Your task to perform on an android device: make emails show in primary in the gmail app Image 0: 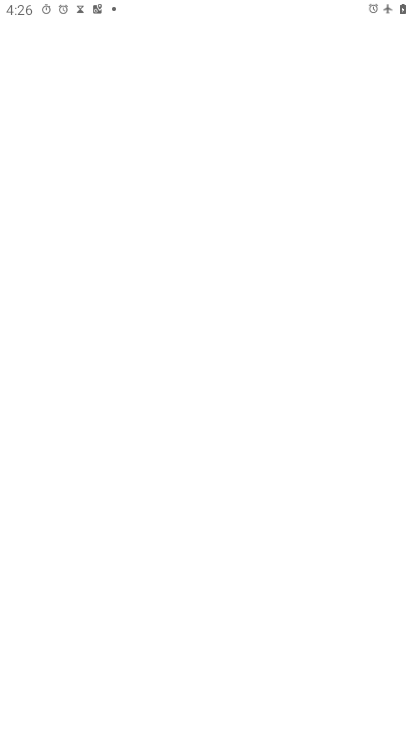
Step 0: press home button
Your task to perform on an android device: make emails show in primary in the gmail app Image 1: 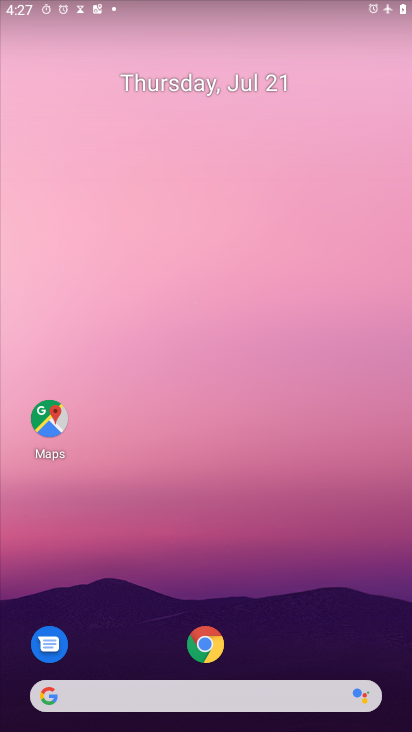
Step 1: drag from (324, 656) to (359, 129)
Your task to perform on an android device: make emails show in primary in the gmail app Image 2: 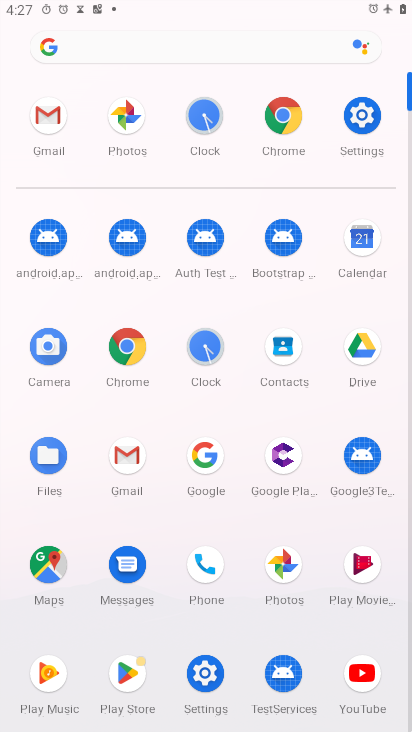
Step 2: click (123, 458)
Your task to perform on an android device: make emails show in primary in the gmail app Image 3: 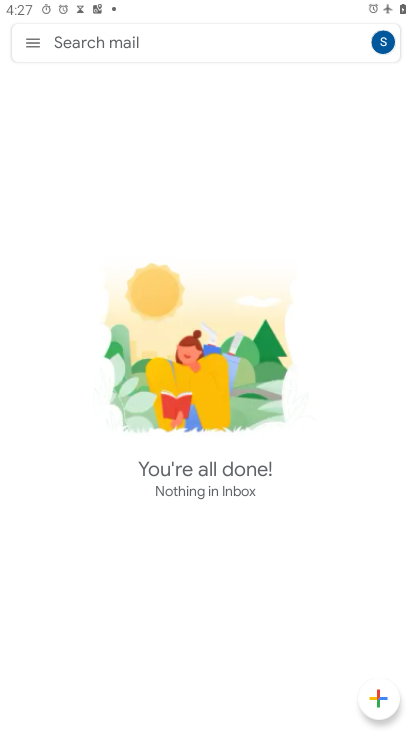
Step 3: click (34, 39)
Your task to perform on an android device: make emails show in primary in the gmail app Image 4: 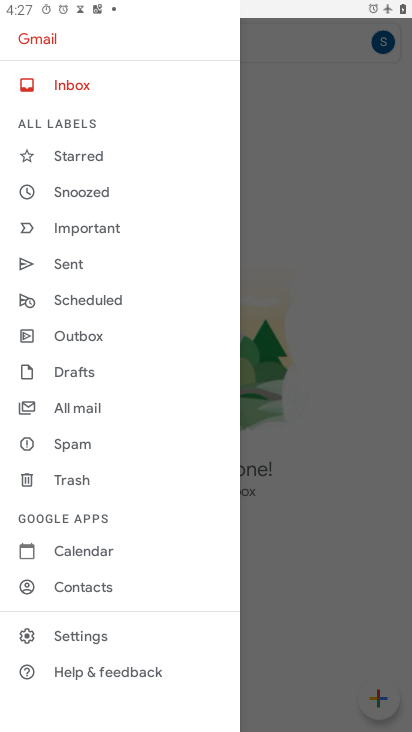
Step 4: click (86, 638)
Your task to perform on an android device: make emails show in primary in the gmail app Image 5: 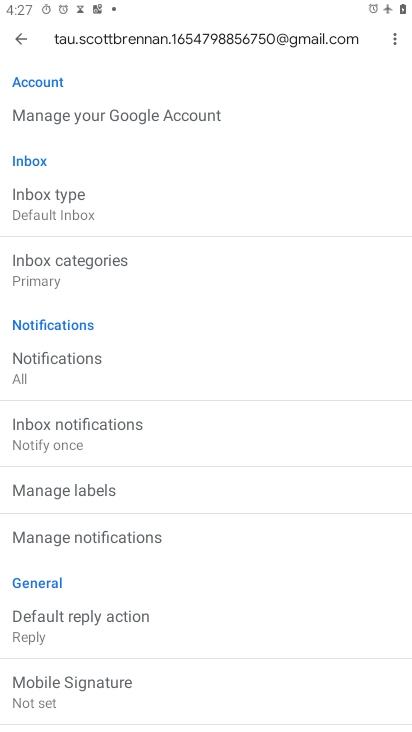
Step 5: click (66, 273)
Your task to perform on an android device: make emails show in primary in the gmail app Image 6: 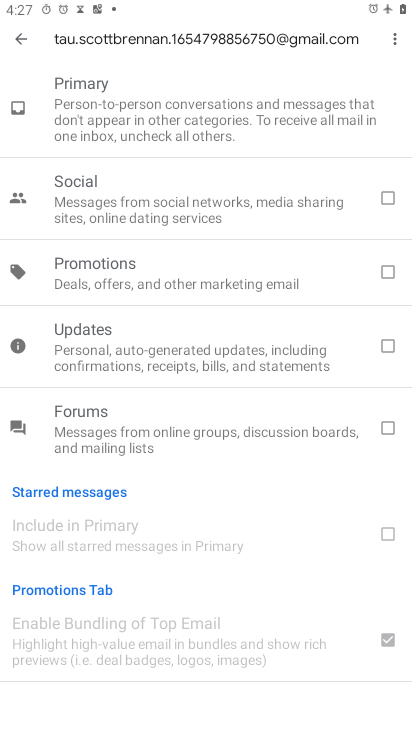
Step 6: task complete